Your task to perform on an android device: Open the phone app and click the voicemail tab. Image 0: 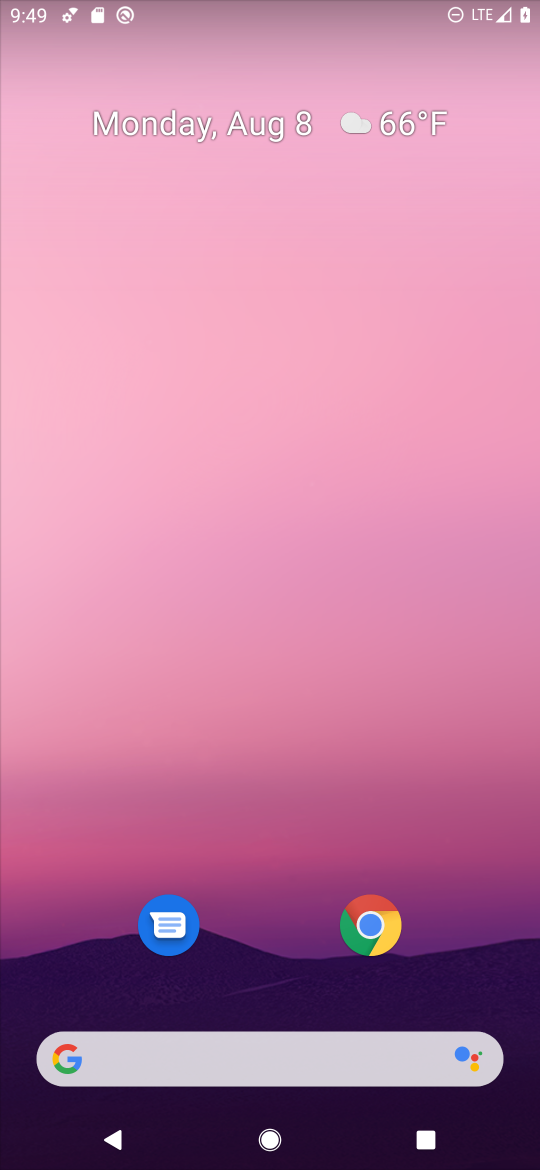
Step 0: drag from (266, 949) to (233, 31)
Your task to perform on an android device: Open the phone app and click the voicemail tab. Image 1: 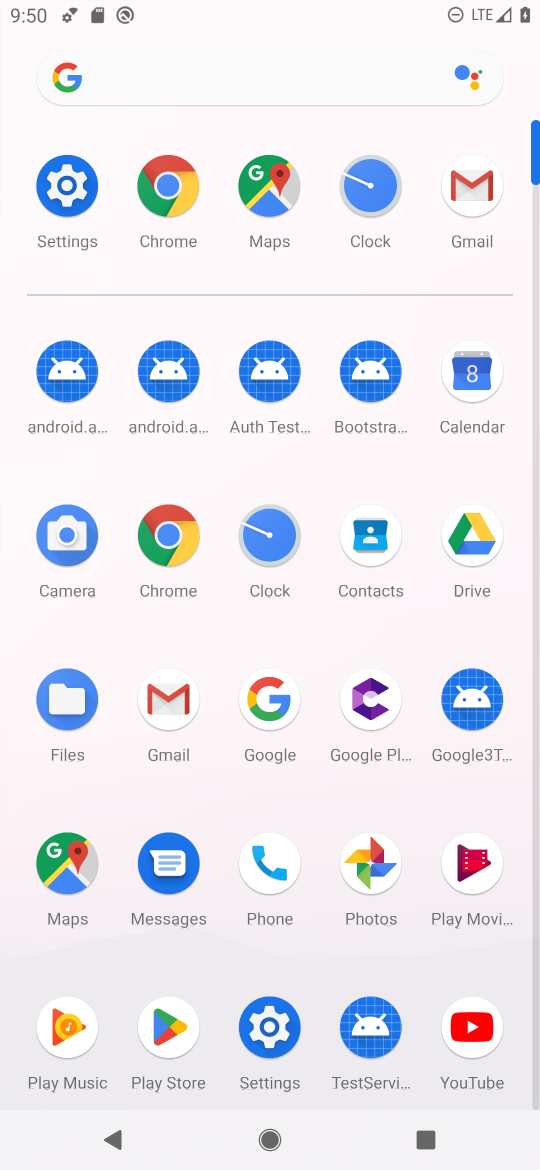
Step 1: click (252, 851)
Your task to perform on an android device: Open the phone app and click the voicemail tab. Image 2: 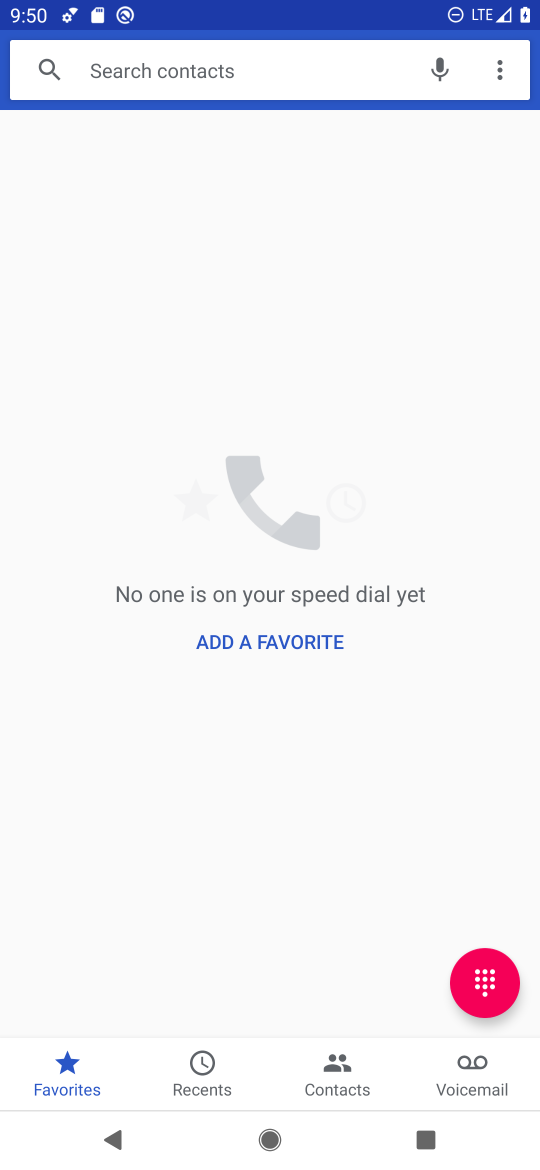
Step 2: click (490, 1072)
Your task to perform on an android device: Open the phone app and click the voicemail tab. Image 3: 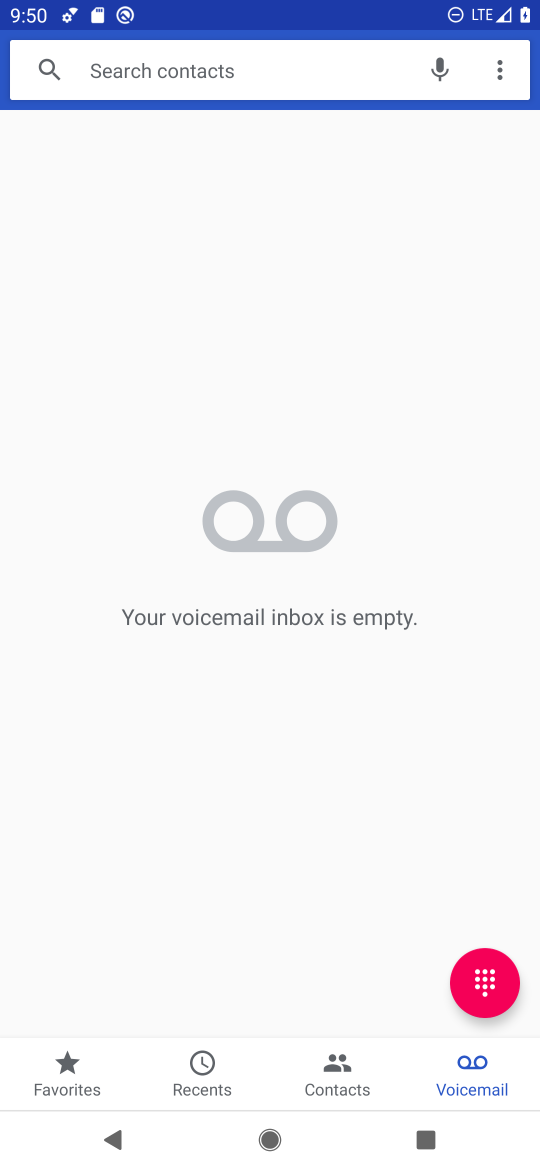
Step 3: task complete